Your task to perform on an android device: toggle location history Image 0: 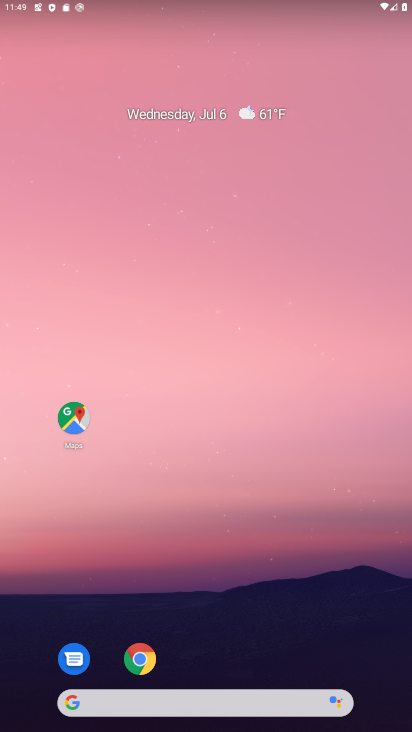
Step 0: drag from (263, 639) to (236, 173)
Your task to perform on an android device: toggle location history Image 1: 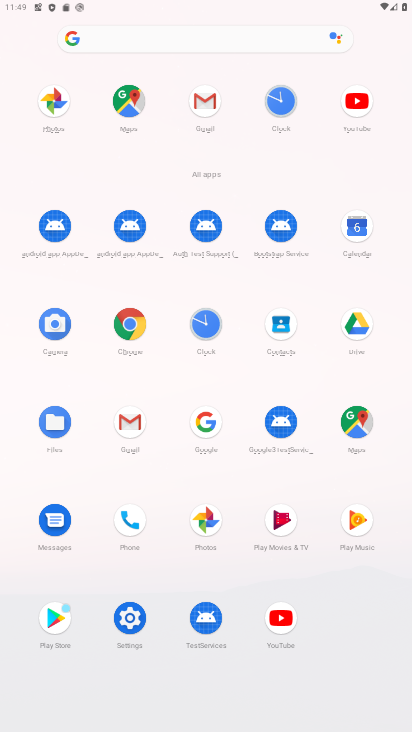
Step 1: click (133, 608)
Your task to perform on an android device: toggle location history Image 2: 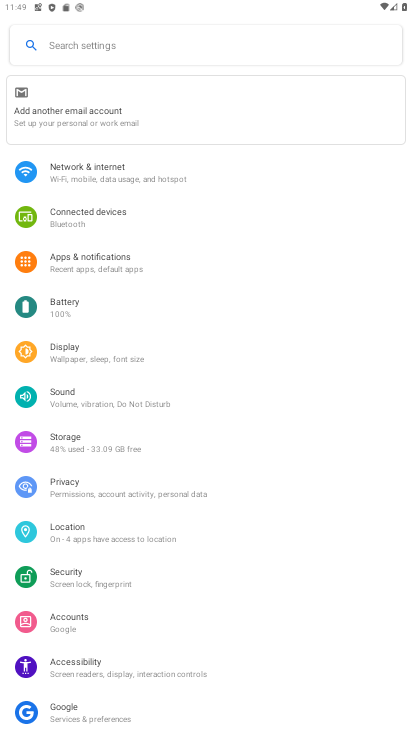
Step 2: click (135, 530)
Your task to perform on an android device: toggle location history Image 3: 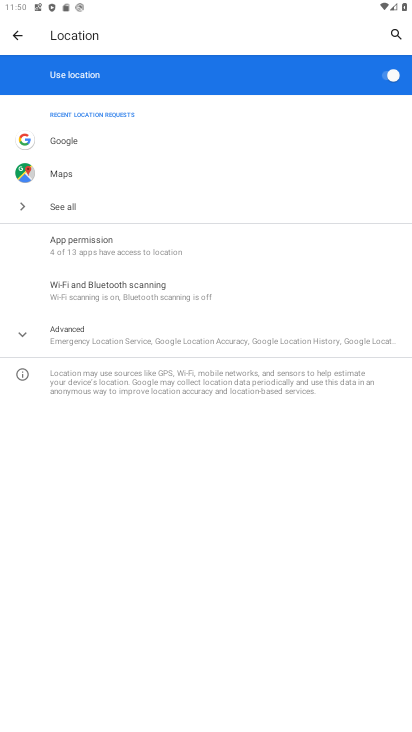
Step 3: click (97, 328)
Your task to perform on an android device: toggle location history Image 4: 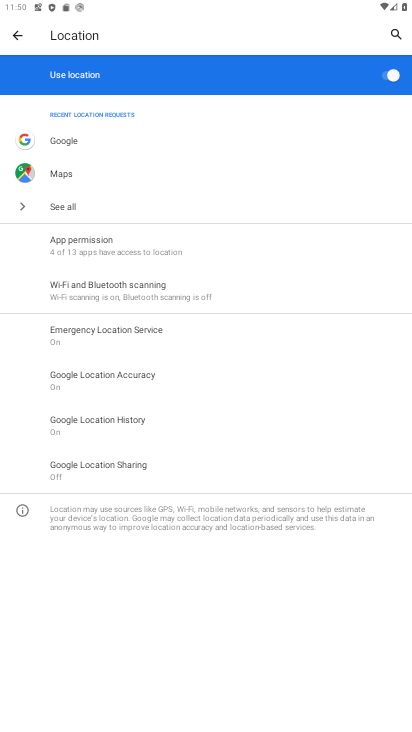
Step 4: click (151, 420)
Your task to perform on an android device: toggle location history Image 5: 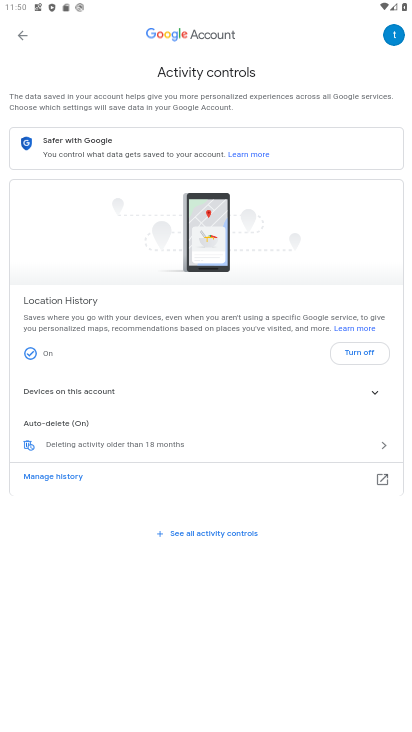
Step 5: click (350, 350)
Your task to perform on an android device: toggle location history Image 6: 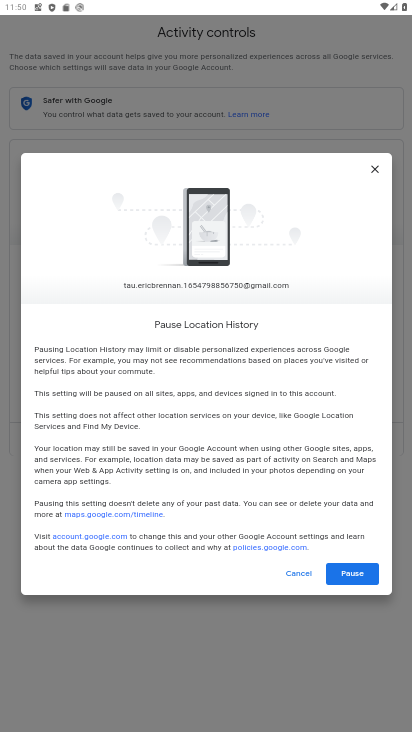
Step 6: click (342, 570)
Your task to perform on an android device: toggle location history Image 7: 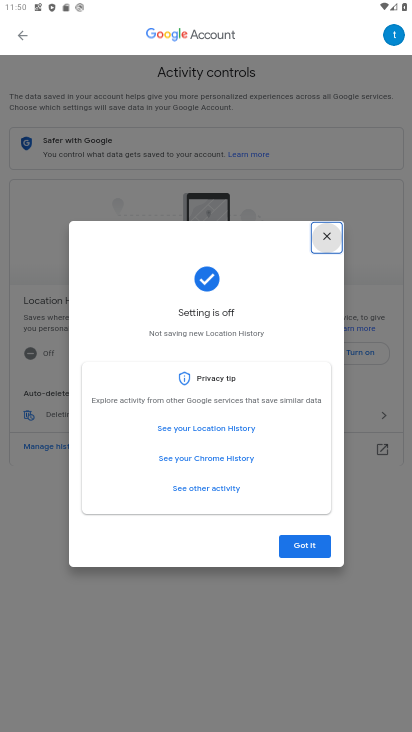
Step 7: click (322, 549)
Your task to perform on an android device: toggle location history Image 8: 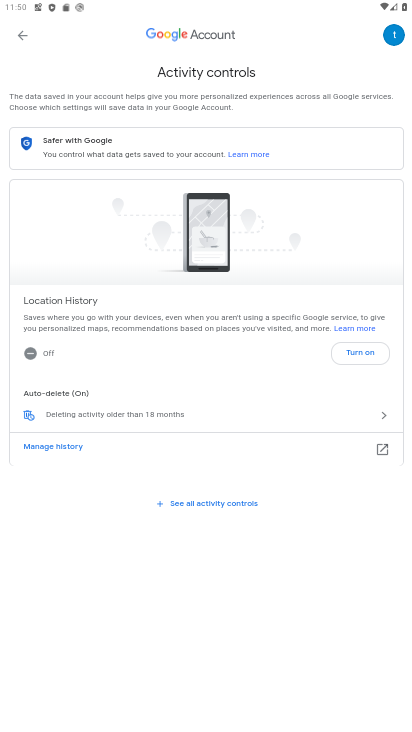
Step 8: task complete